Your task to perform on an android device: Go to internet settings Image 0: 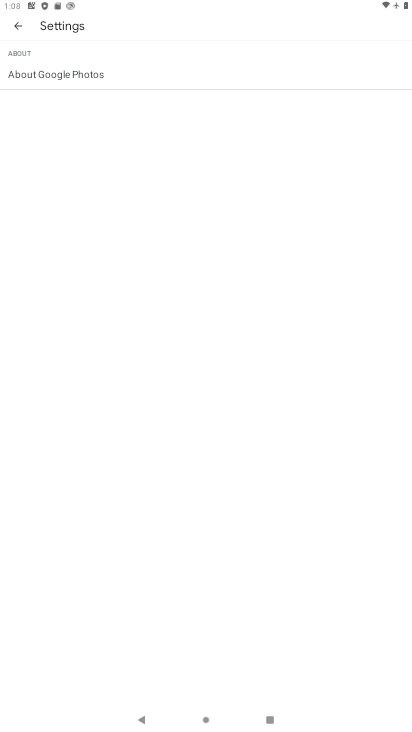
Step 0: press home button
Your task to perform on an android device: Go to internet settings Image 1: 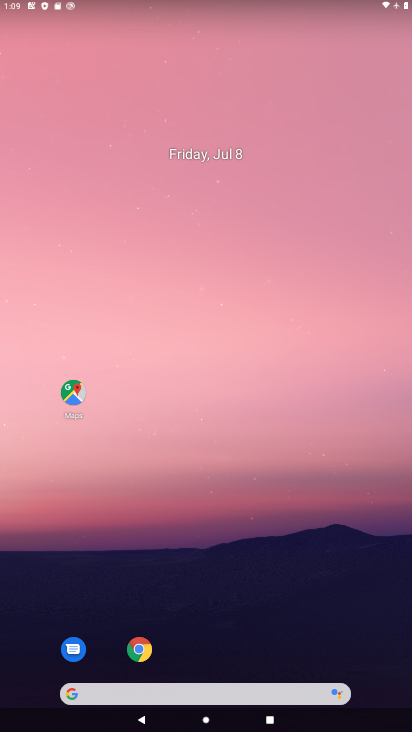
Step 1: drag from (38, 705) to (198, 22)
Your task to perform on an android device: Go to internet settings Image 2: 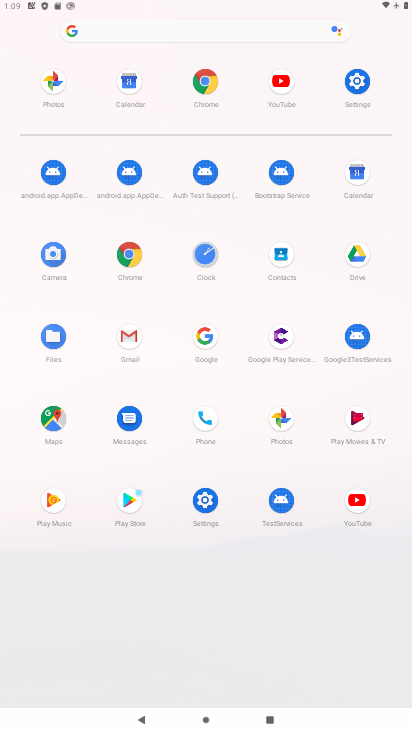
Step 2: click (352, 85)
Your task to perform on an android device: Go to internet settings Image 3: 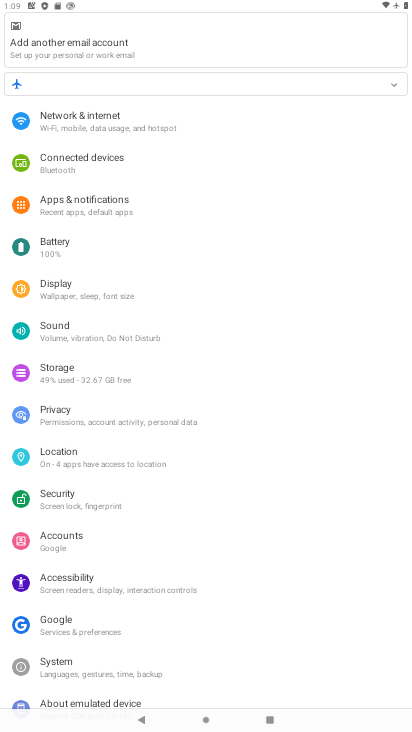
Step 3: click (81, 126)
Your task to perform on an android device: Go to internet settings Image 4: 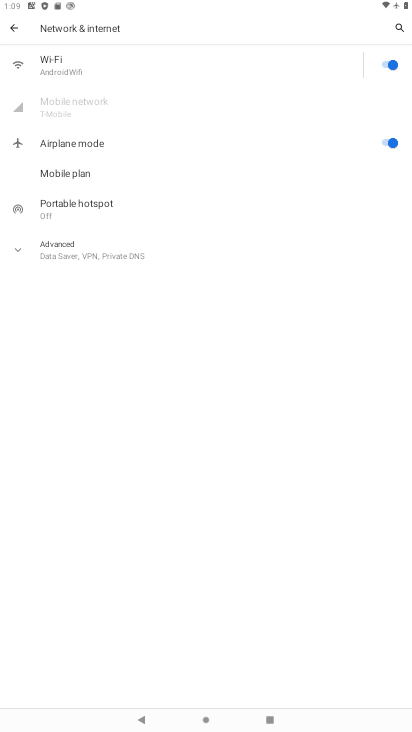
Step 4: task complete